Your task to perform on an android device: Open my contact list Image 0: 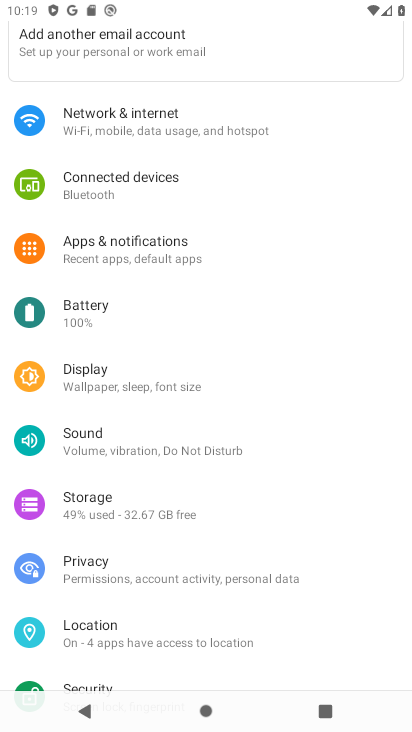
Step 0: press home button
Your task to perform on an android device: Open my contact list Image 1: 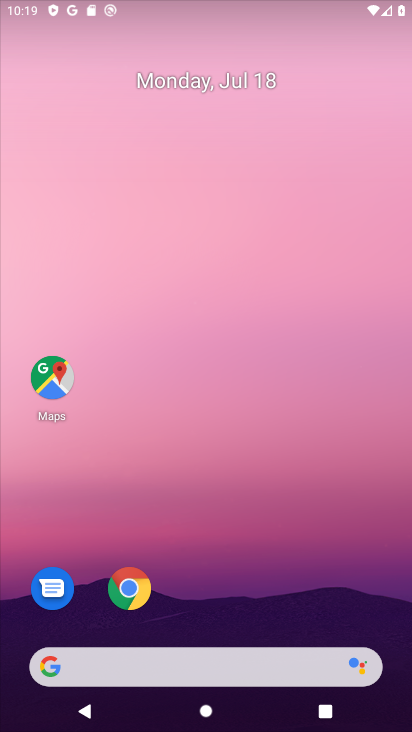
Step 1: drag from (202, 679) to (178, 8)
Your task to perform on an android device: Open my contact list Image 2: 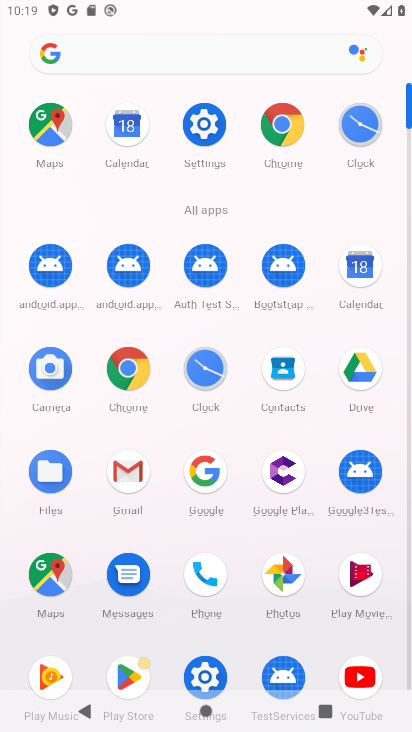
Step 2: click (280, 370)
Your task to perform on an android device: Open my contact list Image 3: 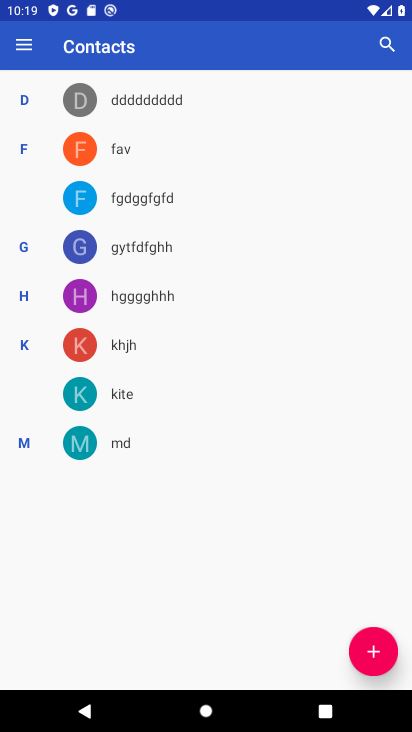
Step 3: task complete